Your task to perform on an android device: Go to Reddit.com Image 0: 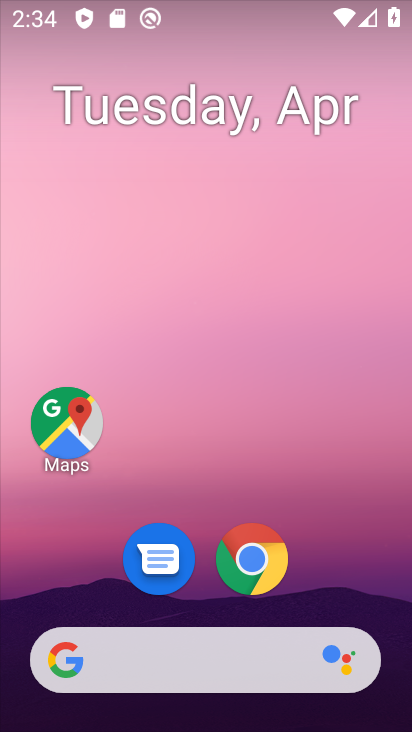
Step 0: click (251, 565)
Your task to perform on an android device: Go to Reddit.com Image 1: 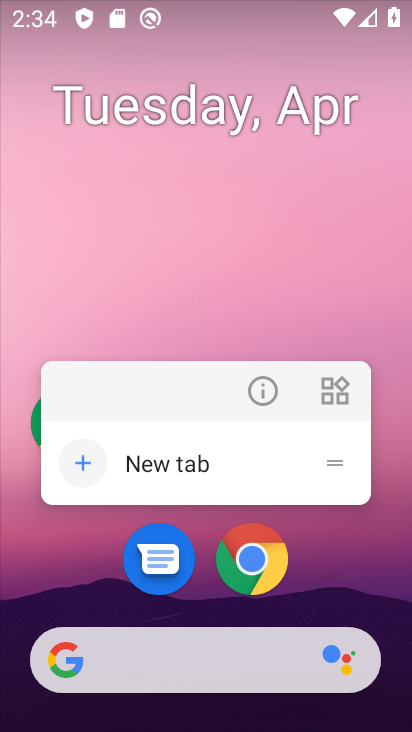
Step 1: click (257, 557)
Your task to perform on an android device: Go to Reddit.com Image 2: 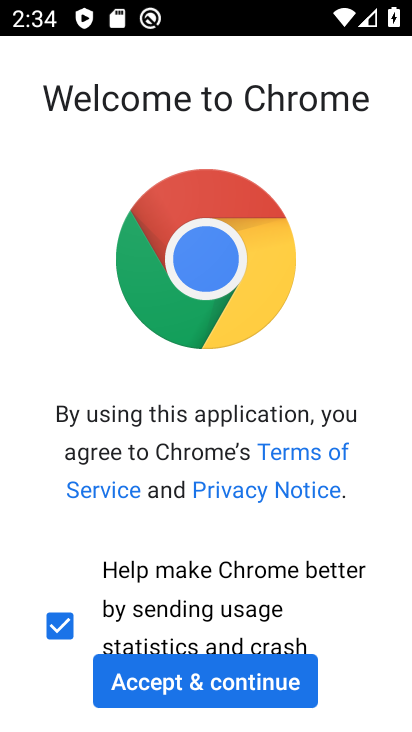
Step 2: click (194, 693)
Your task to perform on an android device: Go to Reddit.com Image 3: 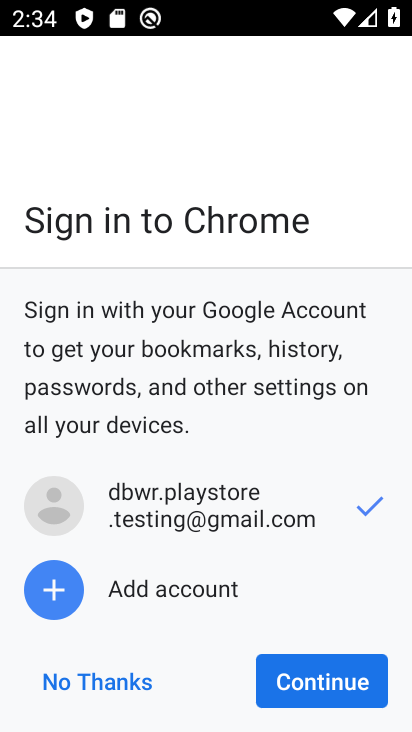
Step 3: click (326, 670)
Your task to perform on an android device: Go to Reddit.com Image 4: 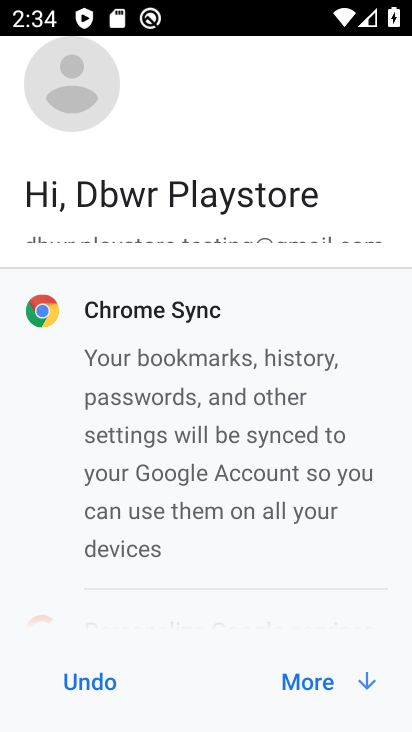
Step 4: click (328, 682)
Your task to perform on an android device: Go to Reddit.com Image 5: 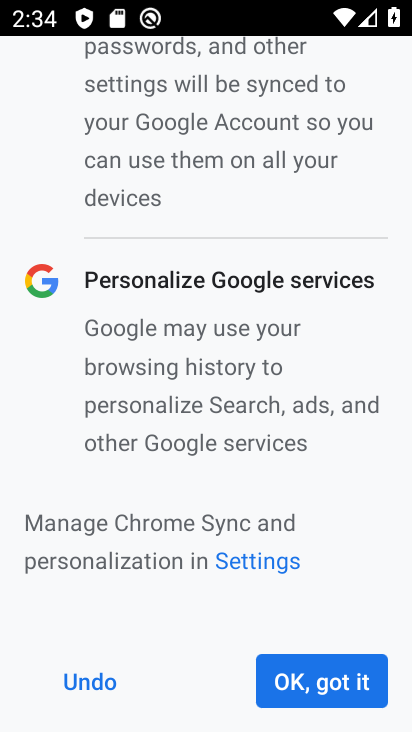
Step 5: click (328, 680)
Your task to perform on an android device: Go to Reddit.com Image 6: 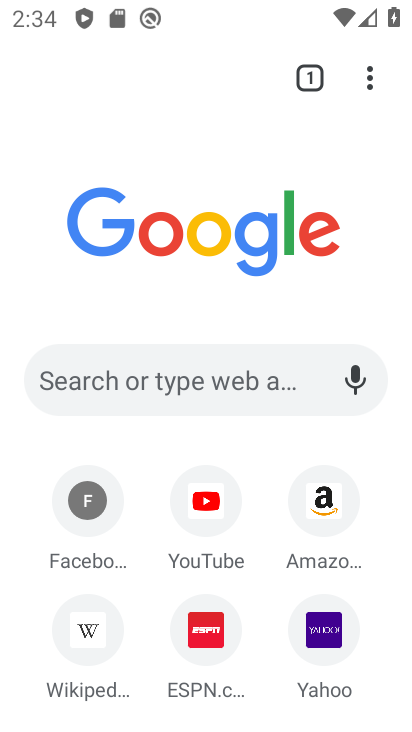
Step 6: click (130, 381)
Your task to perform on an android device: Go to Reddit.com Image 7: 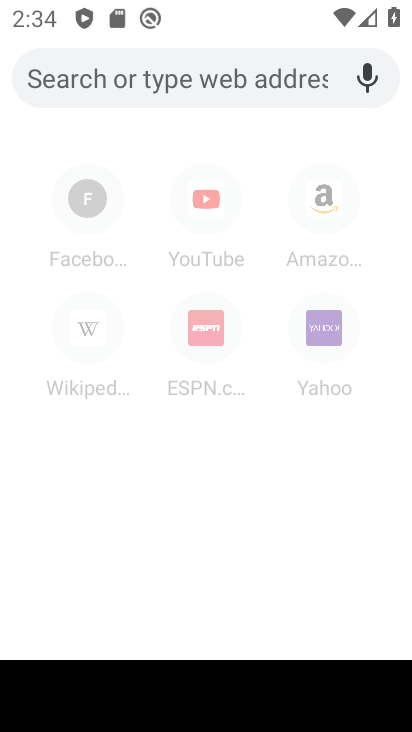
Step 7: type "Reddit.com"
Your task to perform on an android device: Go to Reddit.com Image 8: 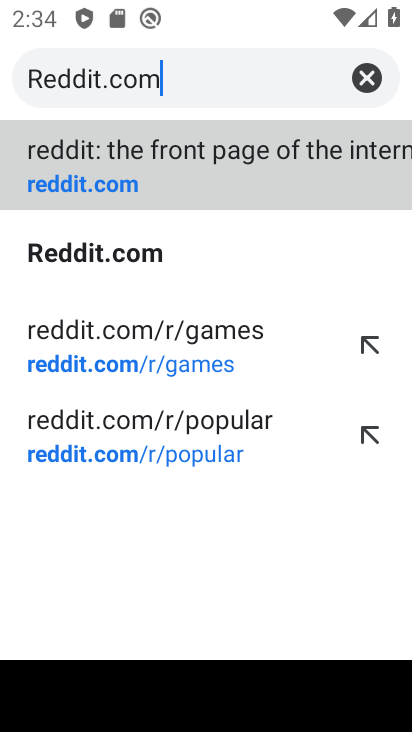
Step 8: click (197, 257)
Your task to perform on an android device: Go to Reddit.com Image 9: 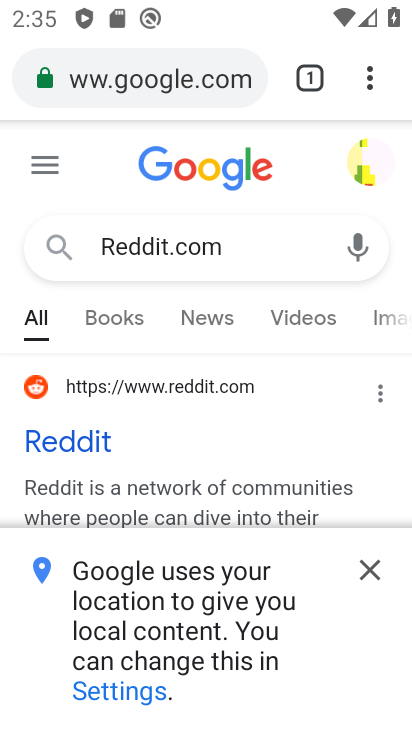
Step 9: task complete